Your task to perform on an android device: Open the calendar app, open the side menu, and click the "Day" option Image 0: 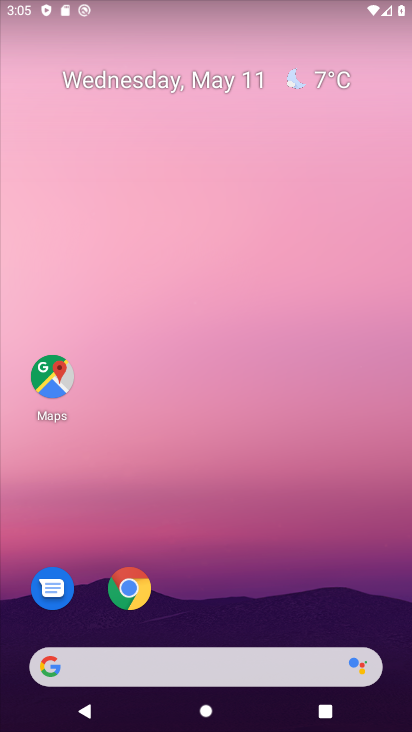
Step 0: drag from (228, 727) to (234, 66)
Your task to perform on an android device: Open the calendar app, open the side menu, and click the "Day" option Image 1: 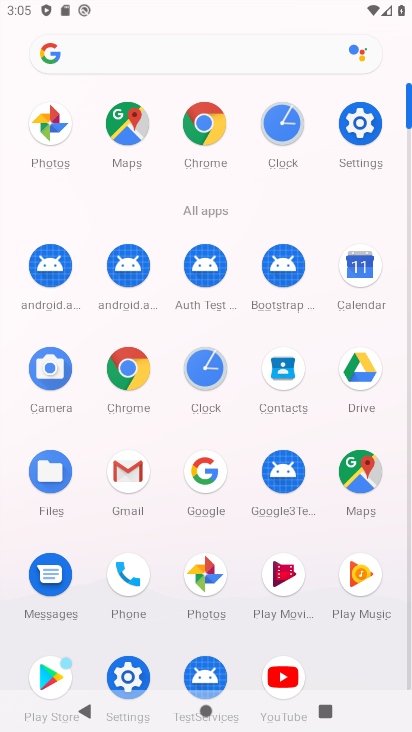
Step 1: click (356, 276)
Your task to perform on an android device: Open the calendar app, open the side menu, and click the "Day" option Image 2: 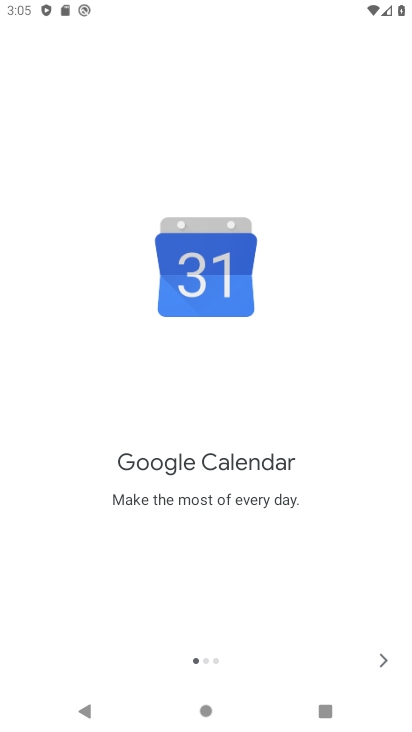
Step 2: click (378, 657)
Your task to perform on an android device: Open the calendar app, open the side menu, and click the "Day" option Image 3: 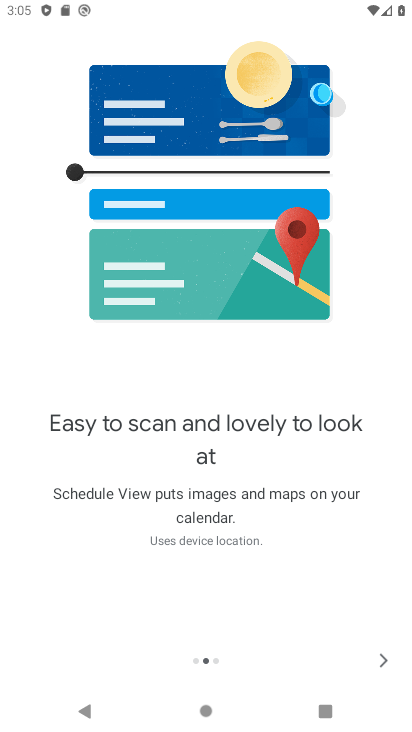
Step 3: click (378, 657)
Your task to perform on an android device: Open the calendar app, open the side menu, and click the "Day" option Image 4: 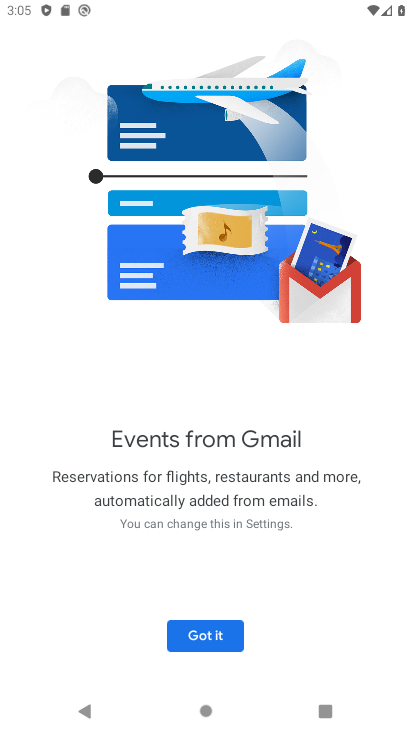
Step 4: click (217, 634)
Your task to perform on an android device: Open the calendar app, open the side menu, and click the "Day" option Image 5: 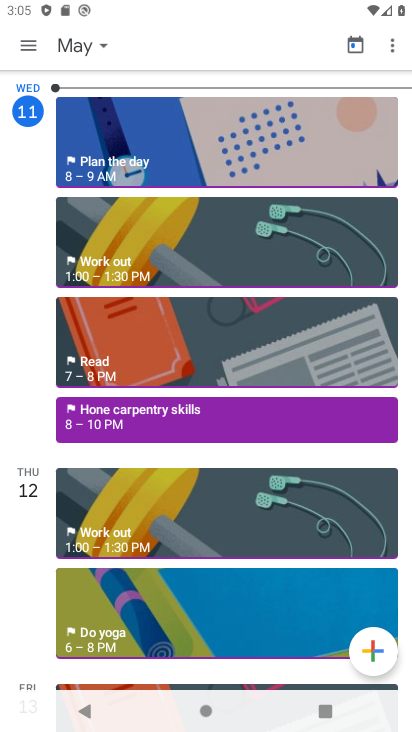
Step 5: click (26, 41)
Your task to perform on an android device: Open the calendar app, open the side menu, and click the "Day" option Image 6: 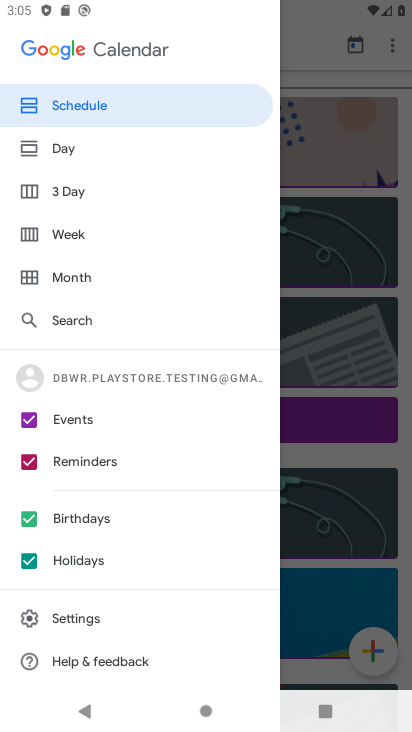
Step 6: click (64, 149)
Your task to perform on an android device: Open the calendar app, open the side menu, and click the "Day" option Image 7: 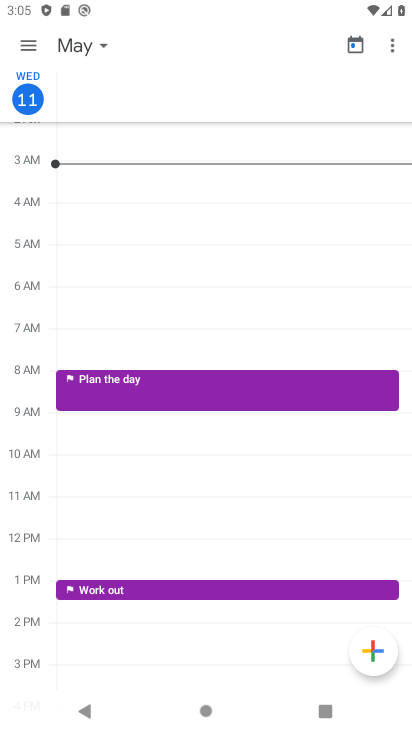
Step 7: task complete